Your task to perform on an android device: turn notification dots on Image 0: 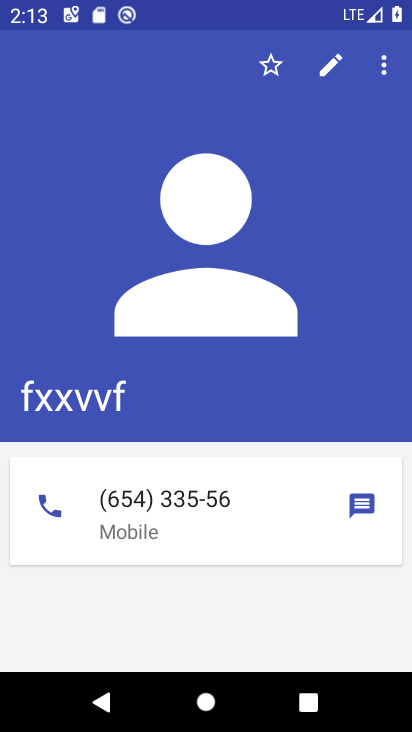
Step 0: press home button
Your task to perform on an android device: turn notification dots on Image 1: 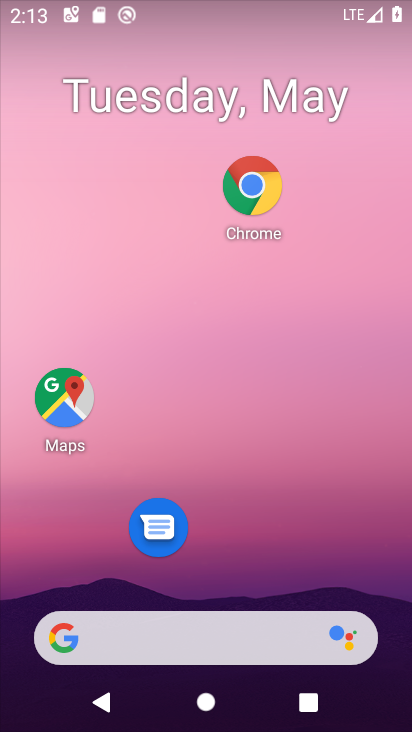
Step 1: drag from (260, 524) to (127, 115)
Your task to perform on an android device: turn notification dots on Image 2: 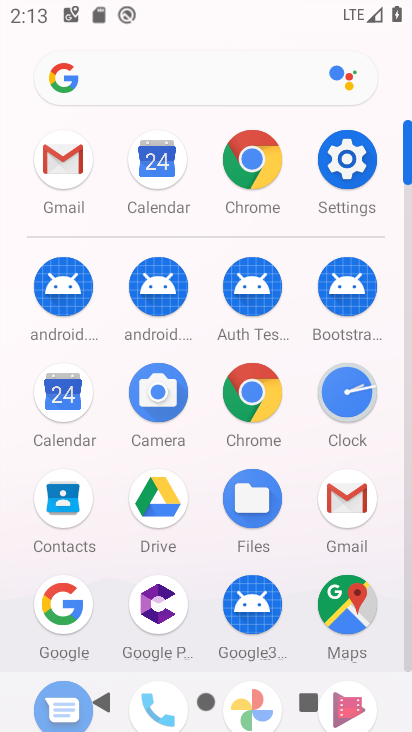
Step 2: click (355, 156)
Your task to perform on an android device: turn notification dots on Image 3: 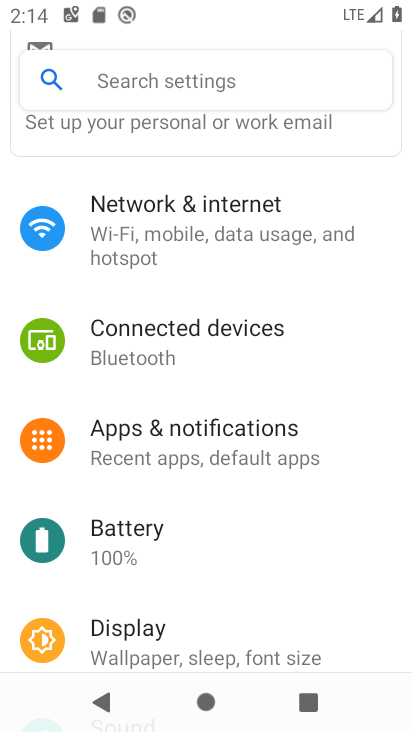
Step 3: click (181, 436)
Your task to perform on an android device: turn notification dots on Image 4: 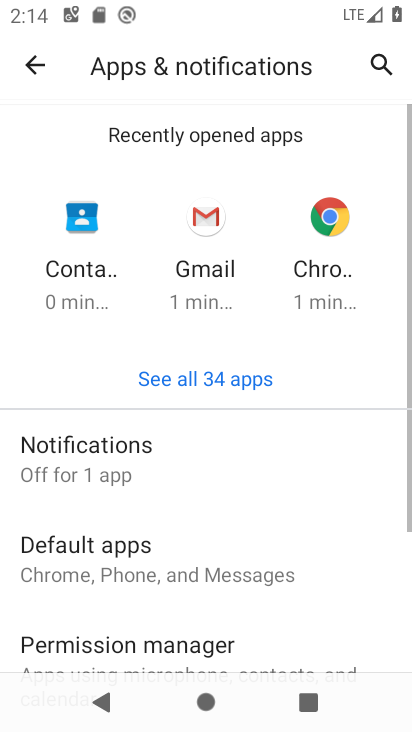
Step 4: drag from (222, 511) to (125, 214)
Your task to perform on an android device: turn notification dots on Image 5: 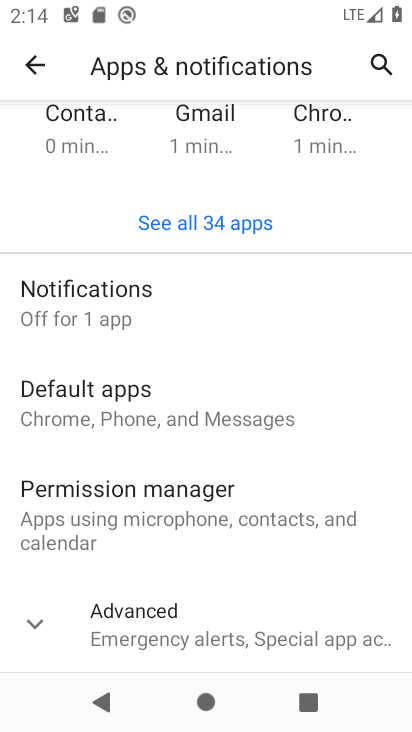
Step 5: click (85, 285)
Your task to perform on an android device: turn notification dots on Image 6: 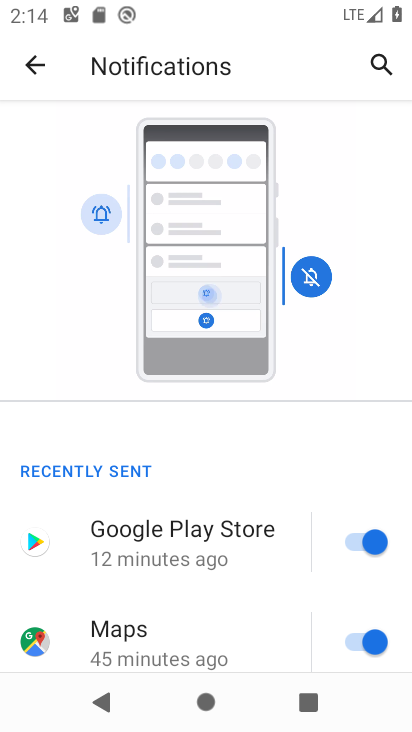
Step 6: drag from (263, 582) to (186, 254)
Your task to perform on an android device: turn notification dots on Image 7: 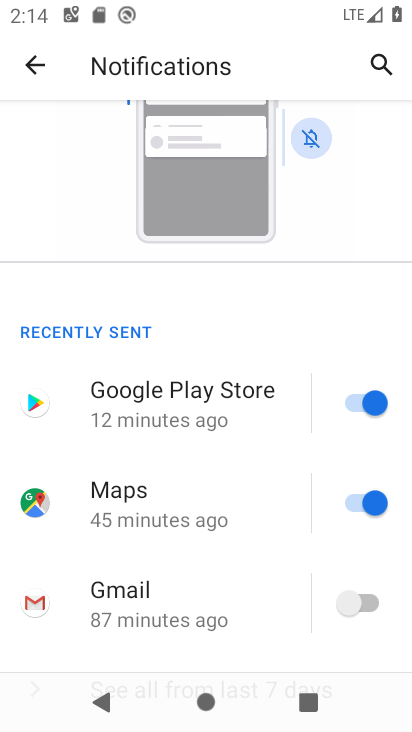
Step 7: drag from (233, 534) to (172, 236)
Your task to perform on an android device: turn notification dots on Image 8: 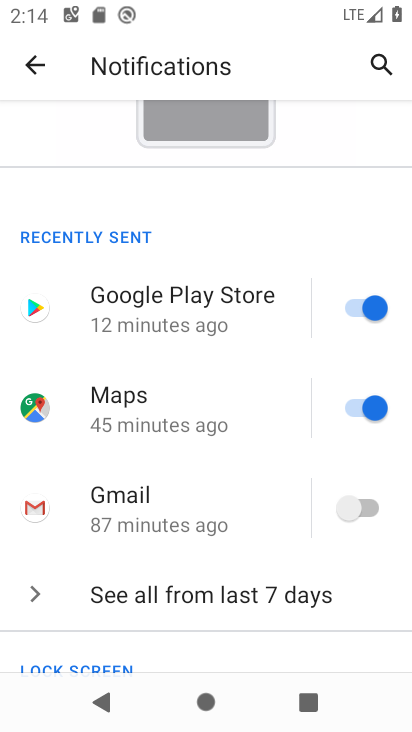
Step 8: drag from (232, 529) to (179, 227)
Your task to perform on an android device: turn notification dots on Image 9: 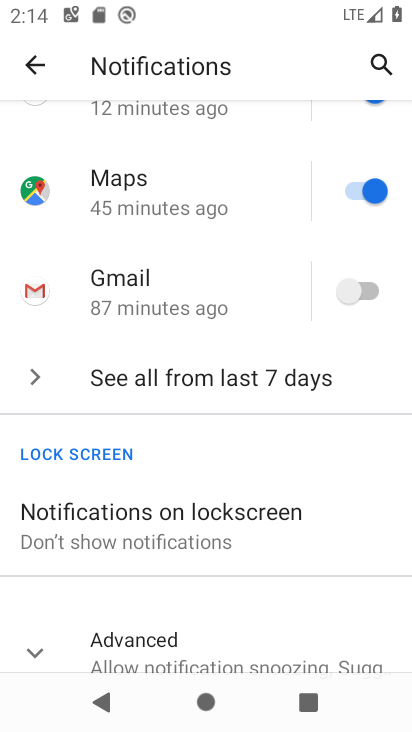
Step 9: drag from (258, 562) to (193, 279)
Your task to perform on an android device: turn notification dots on Image 10: 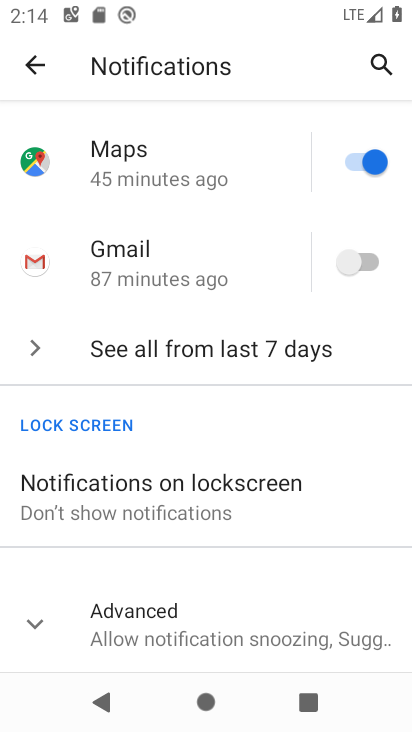
Step 10: click (31, 618)
Your task to perform on an android device: turn notification dots on Image 11: 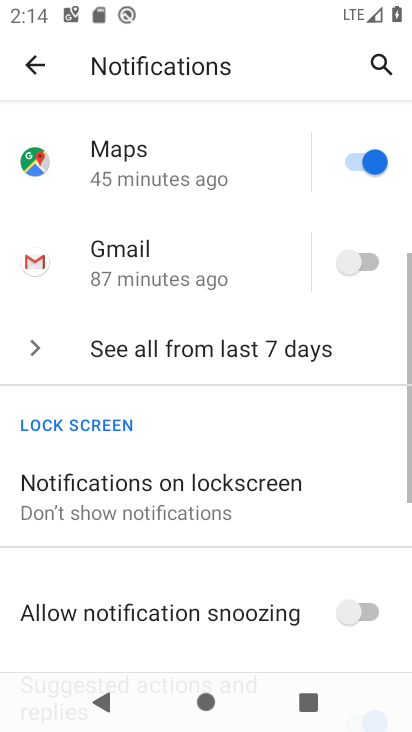
Step 11: task complete